Your task to perform on an android device: Go to eBay Image 0: 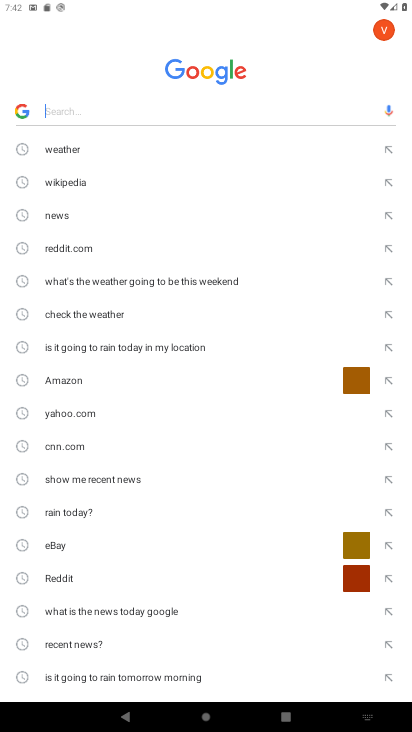
Step 0: press home button
Your task to perform on an android device: Go to eBay Image 1: 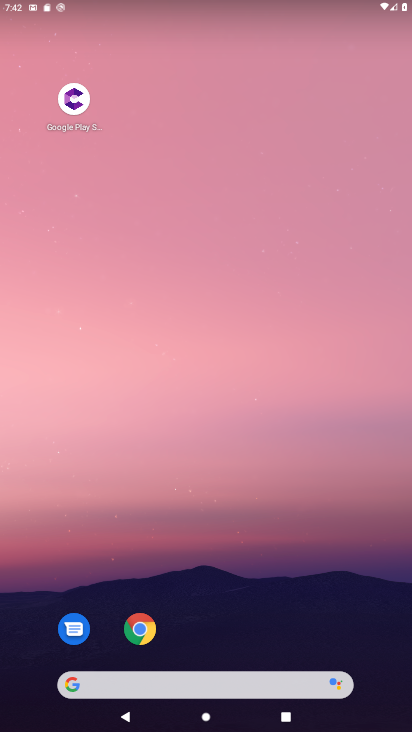
Step 1: click (145, 634)
Your task to perform on an android device: Go to eBay Image 2: 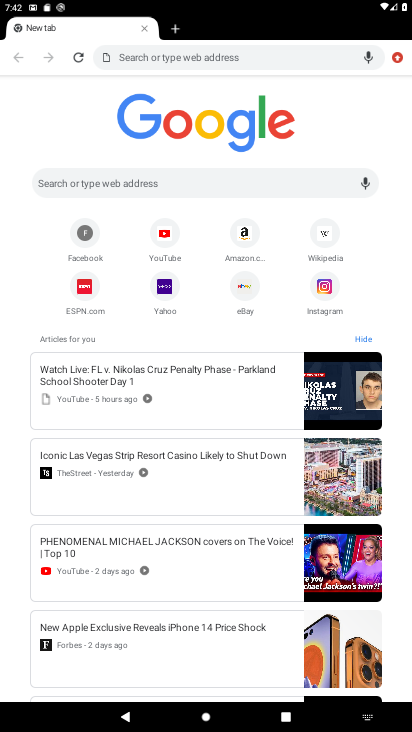
Step 2: click (147, 58)
Your task to perform on an android device: Go to eBay Image 3: 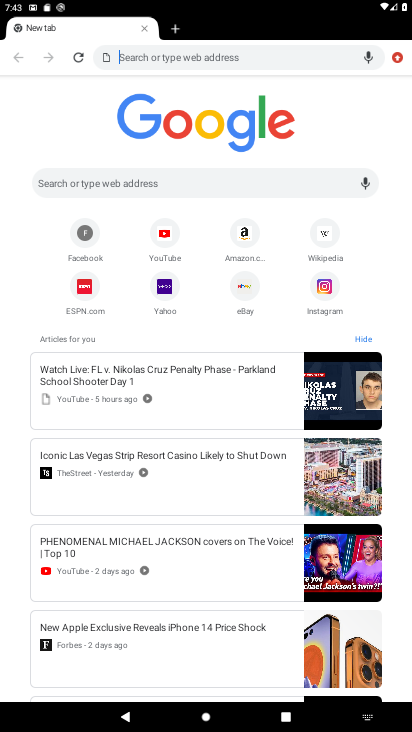
Step 3: type "ebay"
Your task to perform on an android device: Go to eBay Image 4: 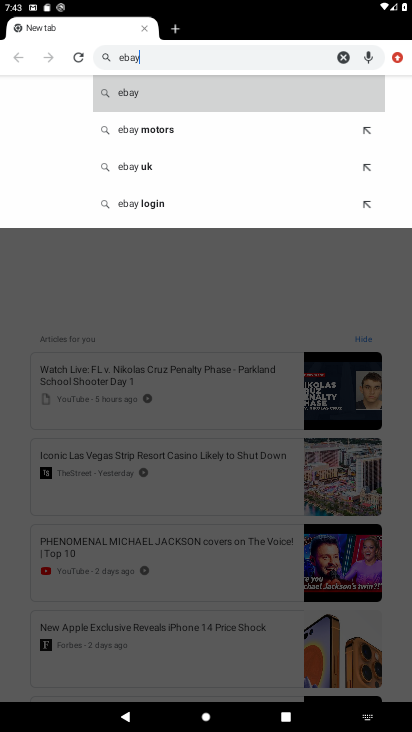
Step 4: click (186, 90)
Your task to perform on an android device: Go to eBay Image 5: 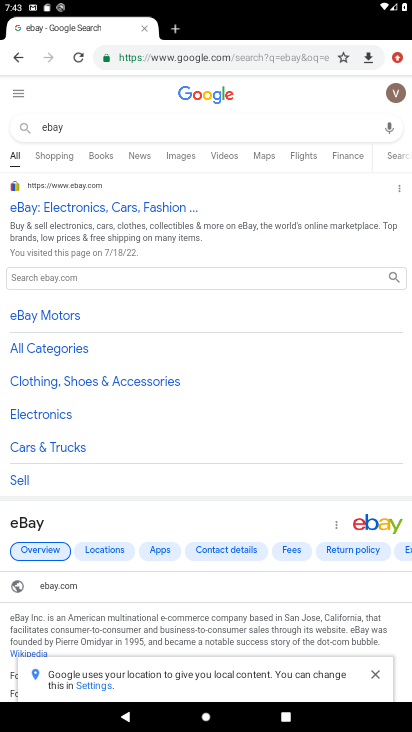
Step 5: task complete